Your task to perform on an android device: turn off location history Image 0: 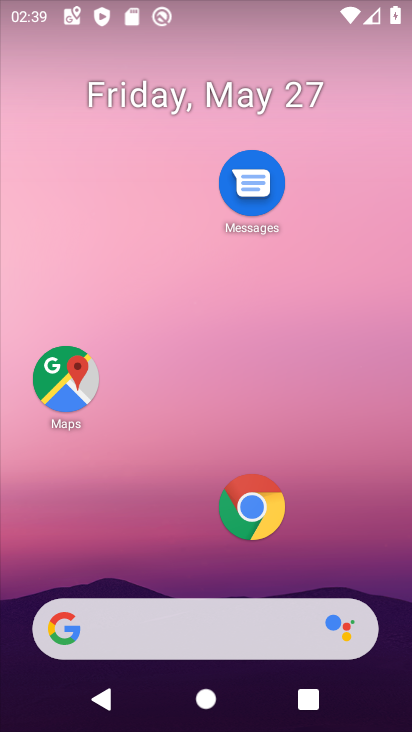
Step 0: drag from (196, 539) to (197, 153)
Your task to perform on an android device: turn off location history Image 1: 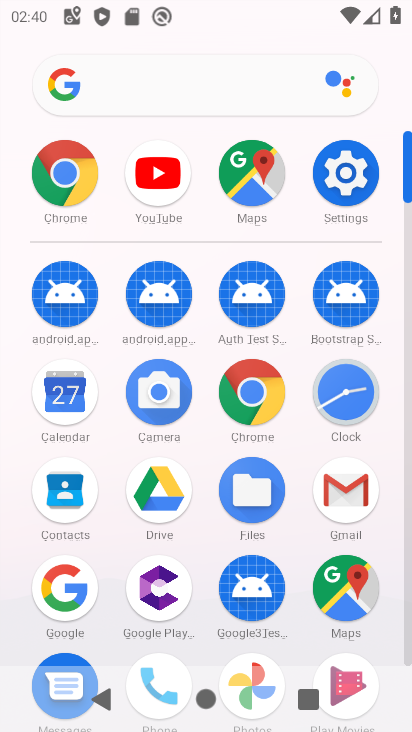
Step 1: click (353, 174)
Your task to perform on an android device: turn off location history Image 2: 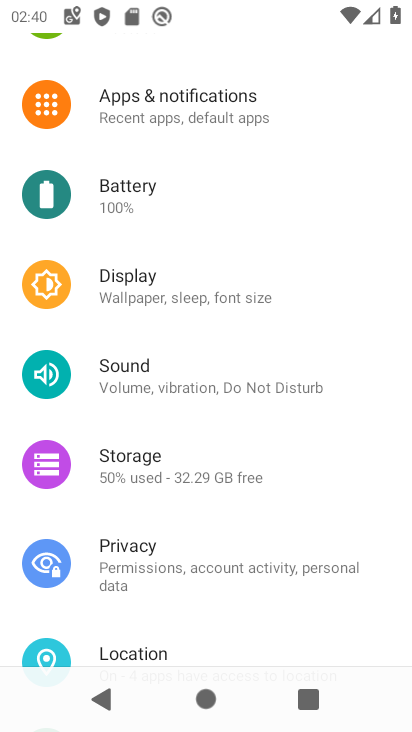
Step 2: drag from (165, 596) to (224, 181)
Your task to perform on an android device: turn off location history Image 3: 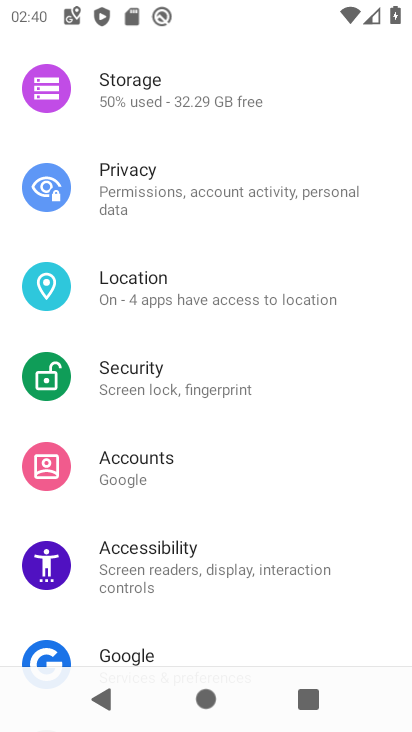
Step 3: drag from (183, 549) to (215, 292)
Your task to perform on an android device: turn off location history Image 4: 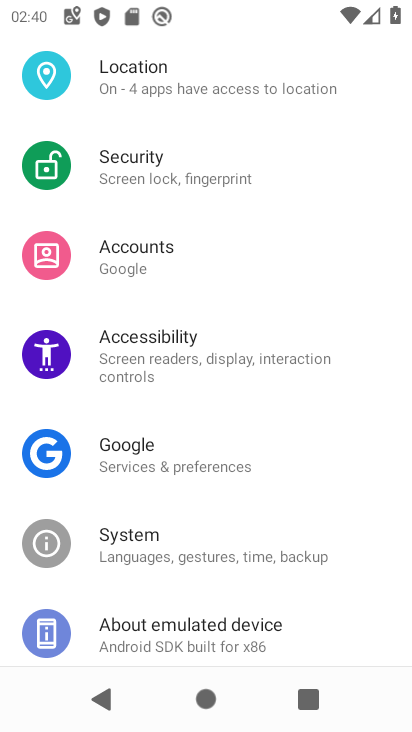
Step 4: drag from (203, 195) to (249, 547)
Your task to perform on an android device: turn off location history Image 5: 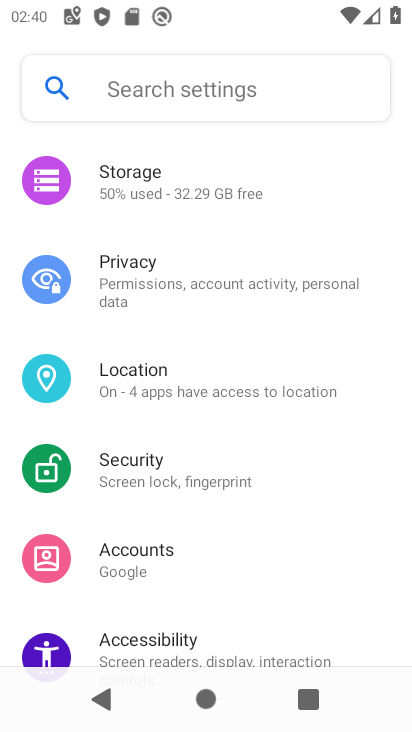
Step 5: drag from (170, 640) to (247, 288)
Your task to perform on an android device: turn off location history Image 6: 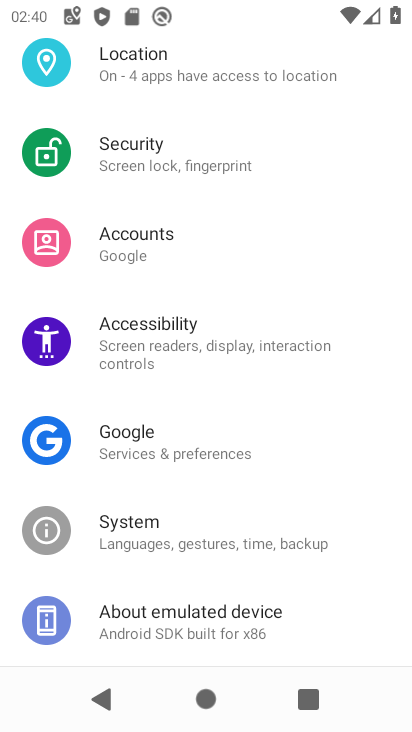
Step 6: drag from (185, 565) to (236, 305)
Your task to perform on an android device: turn off location history Image 7: 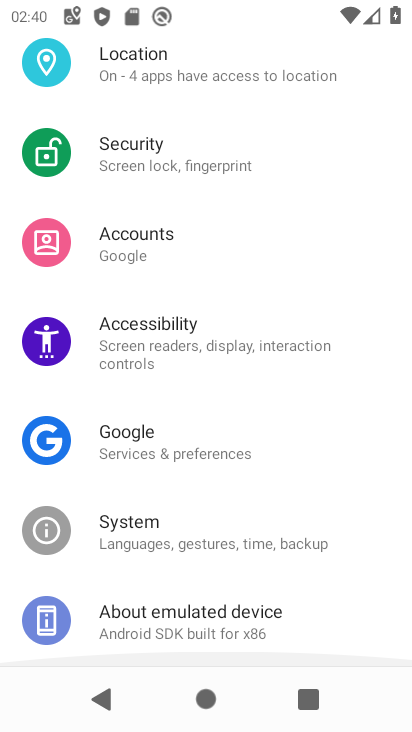
Step 7: drag from (234, 180) to (263, 549)
Your task to perform on an android device: turn off location history Image 8: 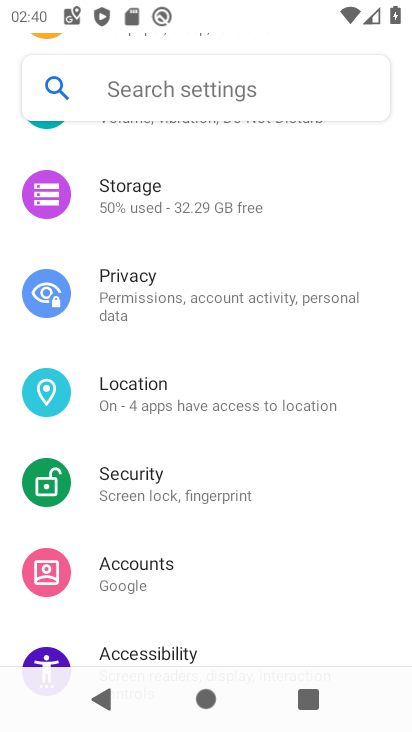
Step 8: drag from (174, 198) to (227, 628)
Your task to perform on an android device: turn off location history Image 9: 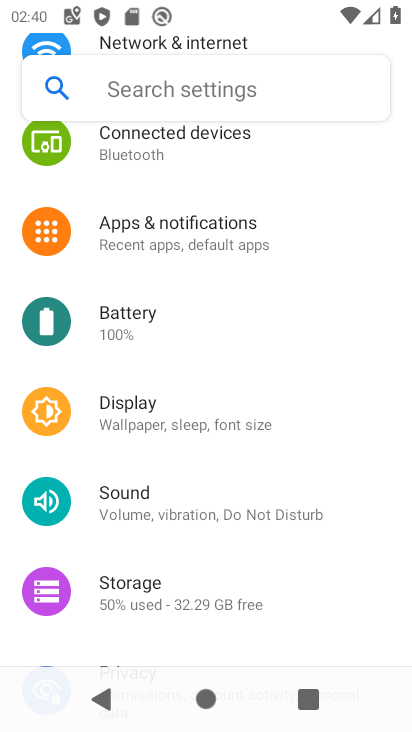
Step 9: drag from (250, 545) to (243, 139)
Your task to perform on an android device: turn off location history Image 10: 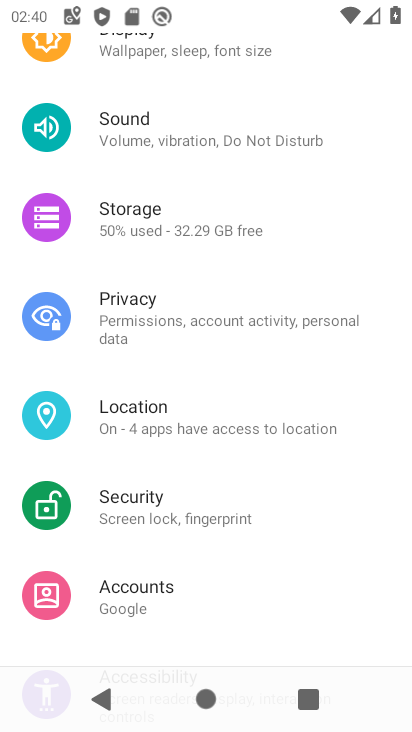
Step 10: click (152, 427)
Your task to perform on an android device: turn off location history Image 11: 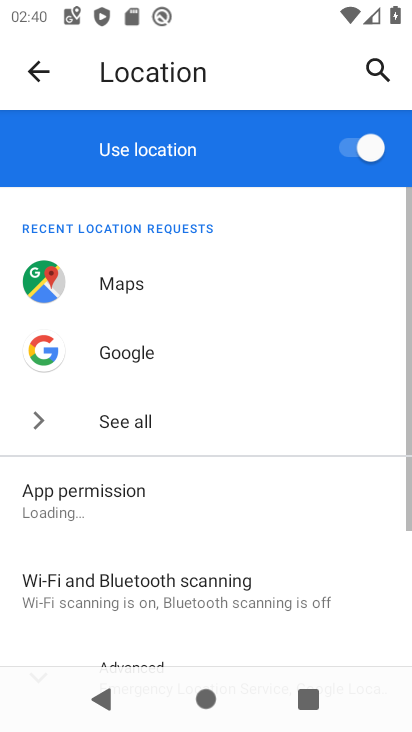
Step 11: drag from (219, 517) to (277, 207)
Your task to perform on an android device: turn off location history Image 12: 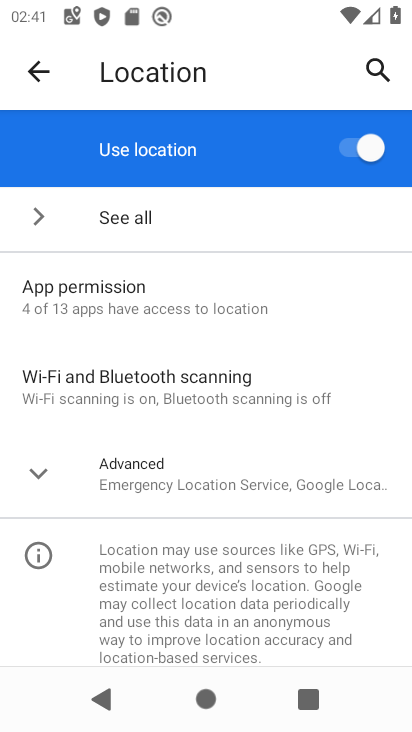
Step 12: click (162, 458)
Your task to perform on an android device: turn off location history Image 13: 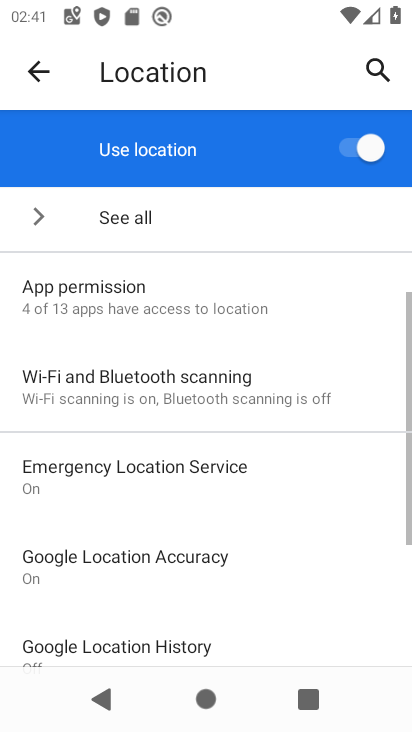
Step 13: drag from (219, 598) to (277, 214)
Your task to perform on an android device: turn off location history Image 14: 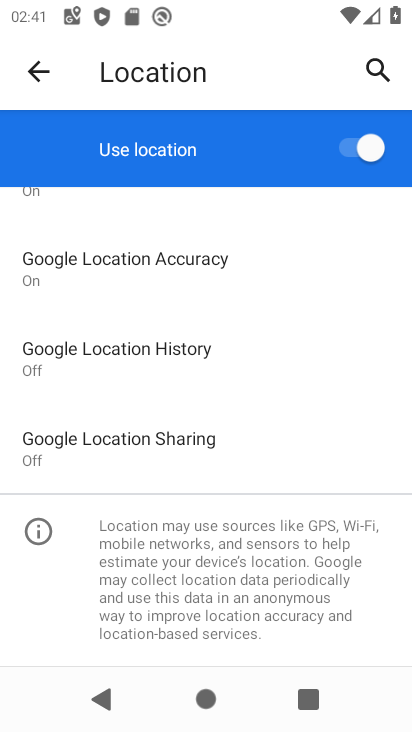
Step 14: click (145, 394)
Your task to perform on an android device: turn off location history Image 15: 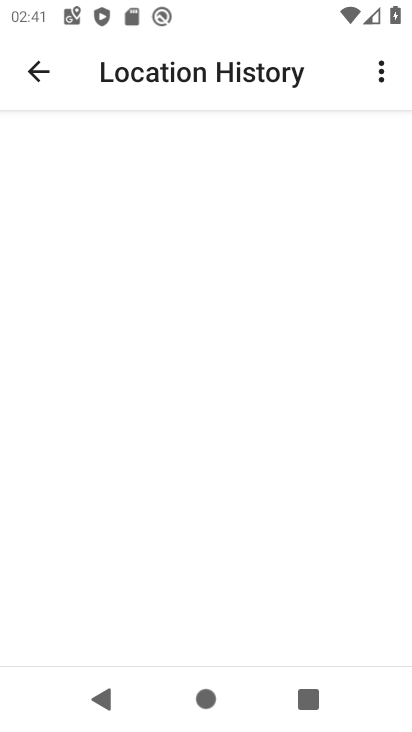
Step 15: drag from (254, 503) to (289, 224)
Your task to perform on an android device: turn off location history Image 16: 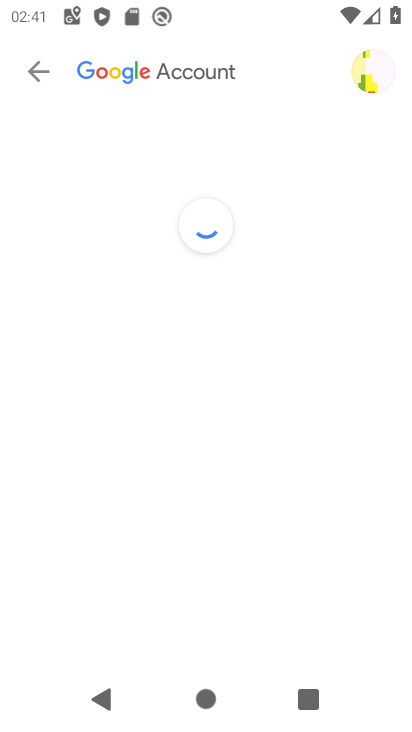
Step 16: drag from (213, 488) to (238, 241)
Your task to perform on an android device: turn off location history Image 17: 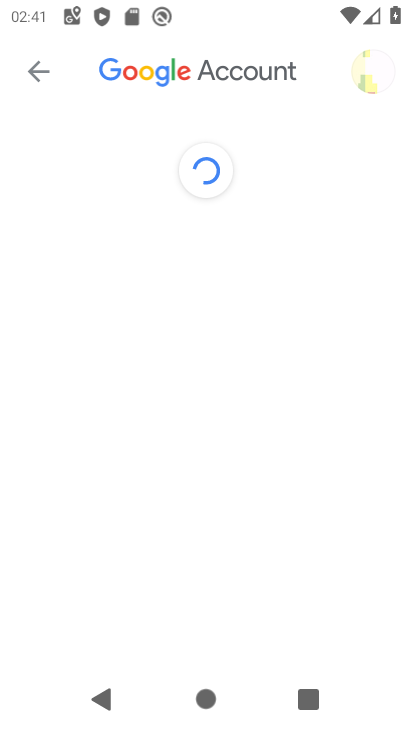
Step 17: drag from (222, 384) to (241, 179)
Your task to perform on an android device: turn off location history Image 18: 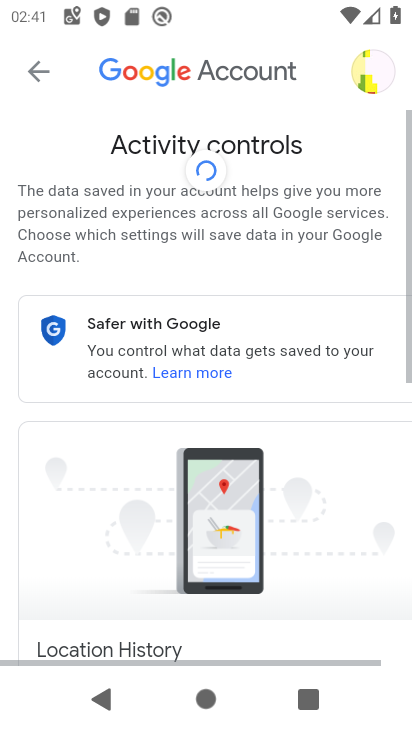
Step 18: drag from (261, 485) to (237, 25)
Your task to perform on an android device: turn off location history Image 19: 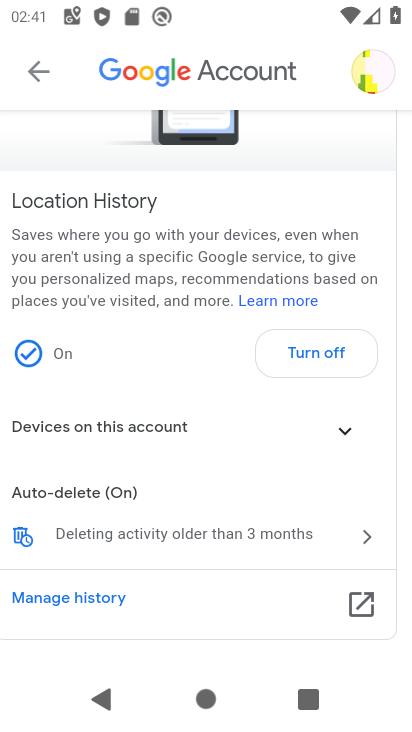
Step 19: drag from (197, 503) to (208, 296)
Your task to perform on an android device: turn off location history Image 20: 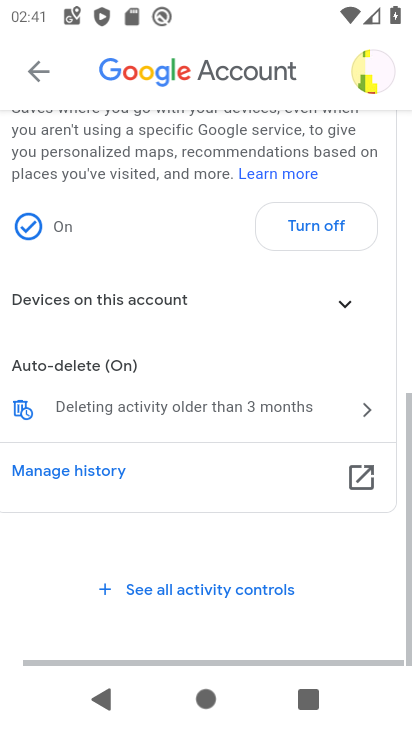
Step 20: drag from (203, 217) to (215, 648)
Your task to perform on an android device: turn off location history Image 21: 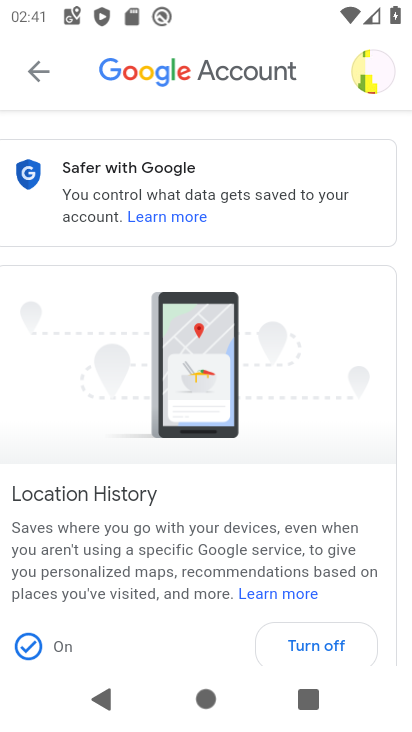
Step 21: drag from (183, 580) to (206, 434)
Your task to perform on an android device: turn off location history Image 22: 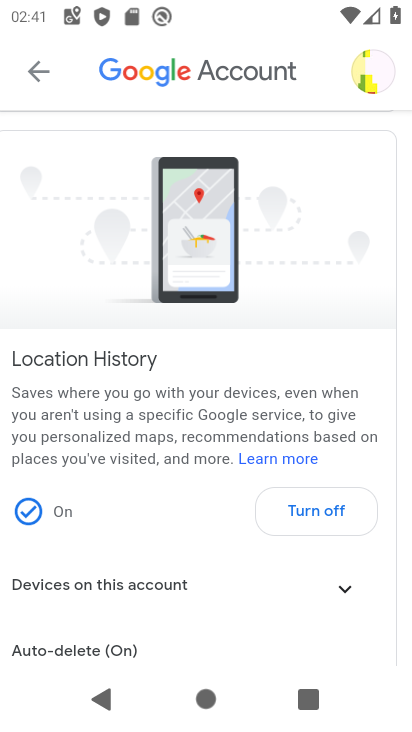
Step 22: drag from (193, 600) to (207, 244)
Your task to perform on an android device: turn off location history Image 23: 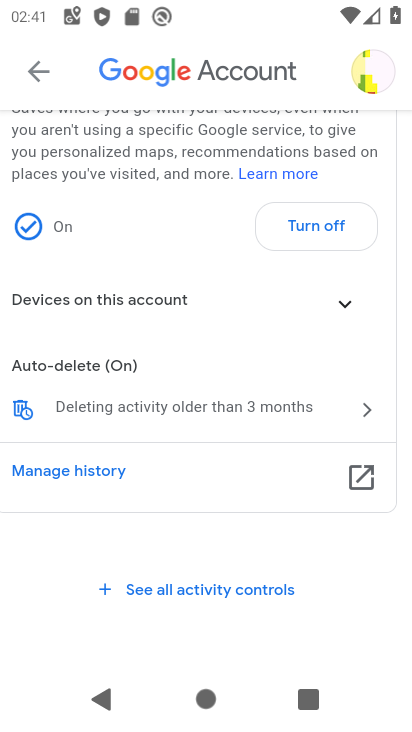
Step 23: drag from (183, 528) to (192, 258)
Your task to perform on an android device: turn off location history Image 24: 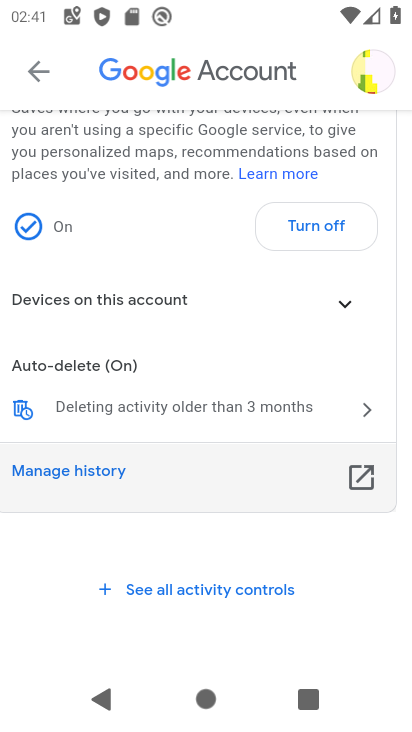
Step 24: drag from (189, 515) to (198, 291)
Your task to perform on an android device: turn off location history Image 25: 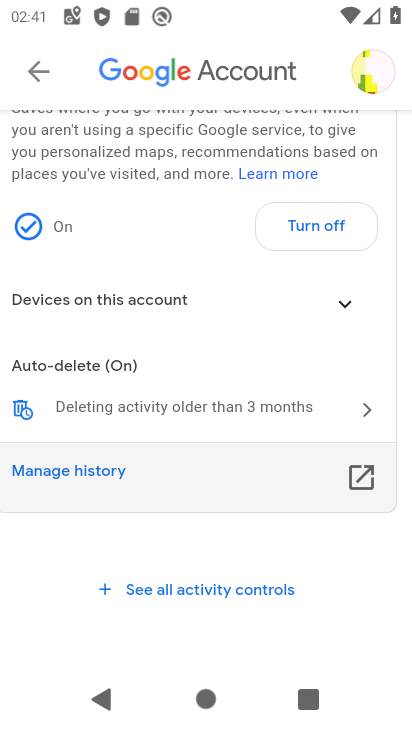
Step 25: drag from (175, 534) to (253, 183)
Your task to perform on an android device: turn off location history Image 26: 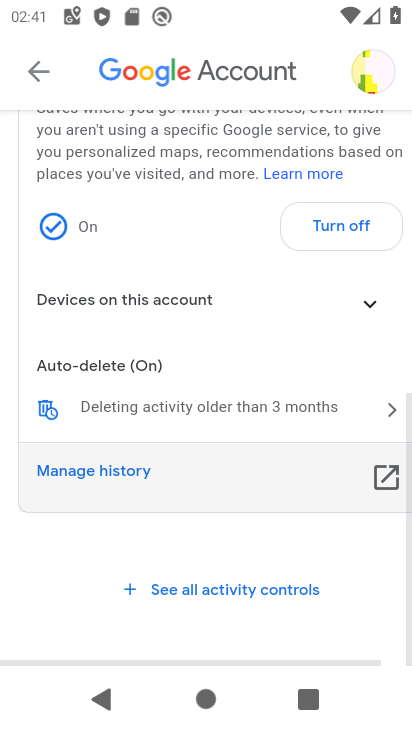
Step 26: drag from (210, 200) to (201, 545)
Your task to perform on an android device: turn off location history Image 27: 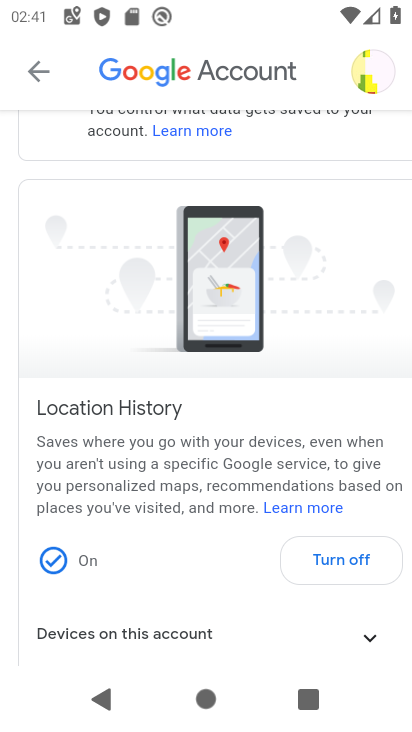
Step 27: drag from (203, 543) to (113, 260)
Your task to perform on an android device: turn off location history Image 28: 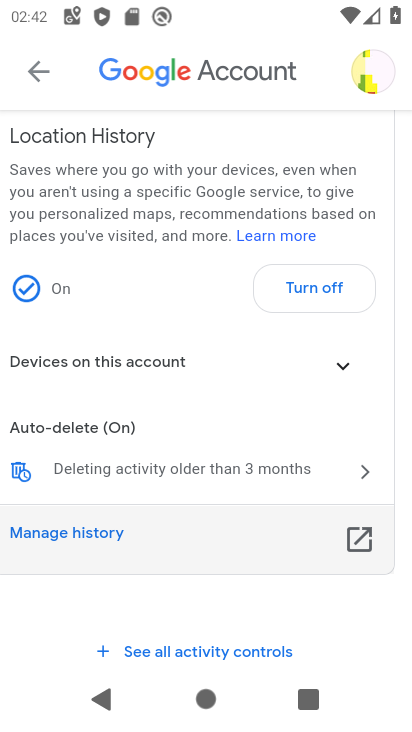
Step 28: click (335, 296)
Your task to perform on an android device: turn off location history Image 29: 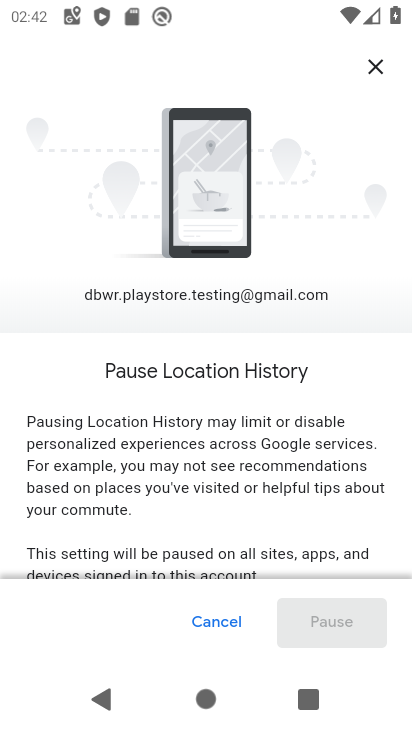
Step 29: drag from (216, 542) to (224, 222)
Your task to perform on an android device: turn off location history Image 30: 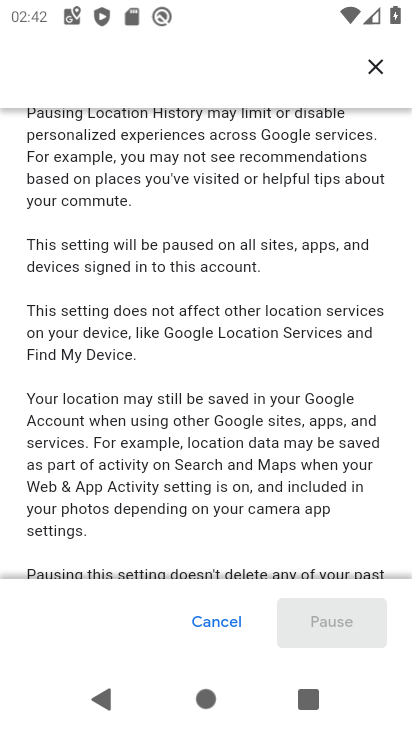
Step 30: drag from (239, 453) to (277, 78)
Your task to perform on an android device: turn off location history Image 31: 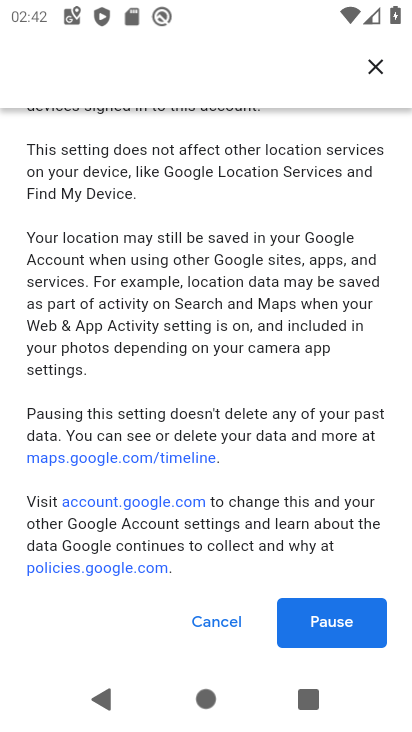
Step 31: click (337, 628)
Your task to perform on an android device: turn off location history Image 32: 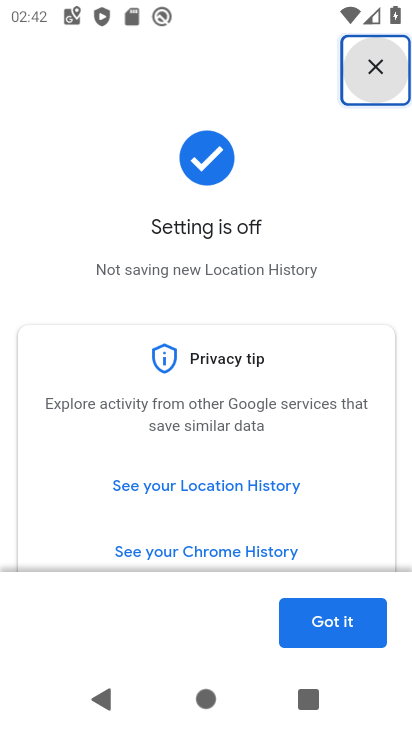
Step 32: click (335, 633)
Your task to perform on an android device: turn off location history Image 33: 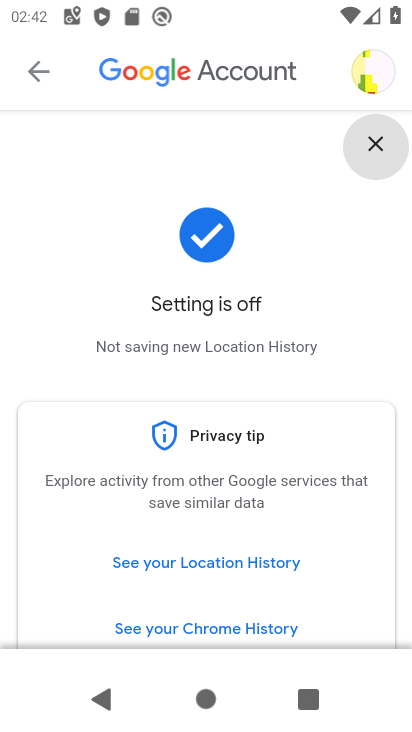
Step 33: task complete